Your task to perform on an android device: open device folders in google photos Image 0: 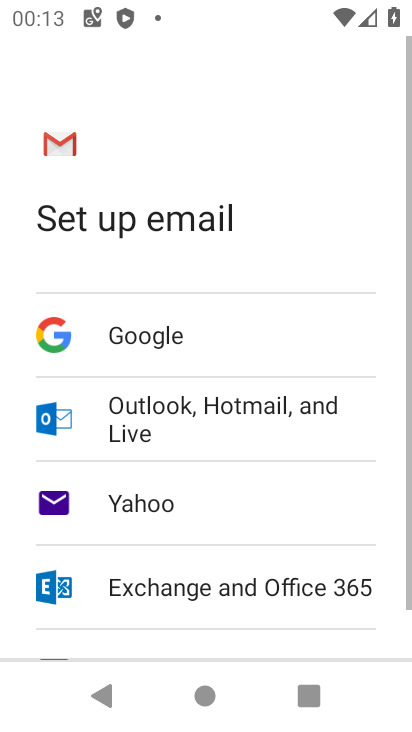
Step 0: press home button
Your task to perform on an android device: open device folders in google photos Image 1: 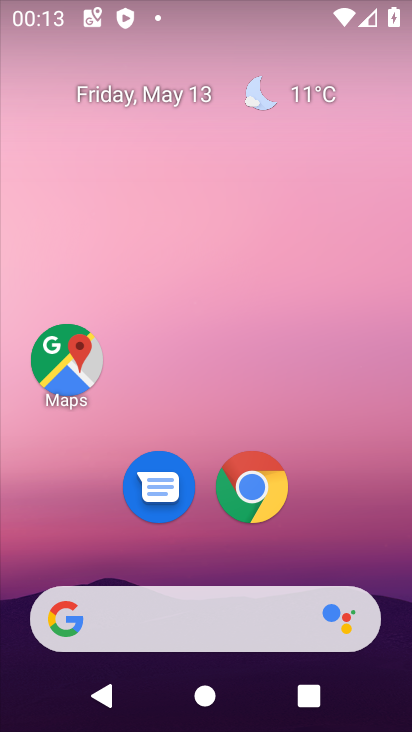
Step 1: drag from (177, 559) to (237, 0)
Your task to perform on an android device: open device folders in google photos Image 2: 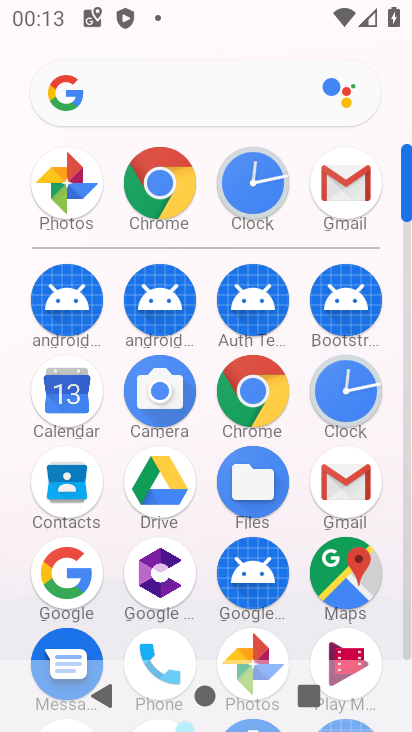
Step 2: click (74, 178)
Your task to perform on an android device: open device folders in google photos Image 3: 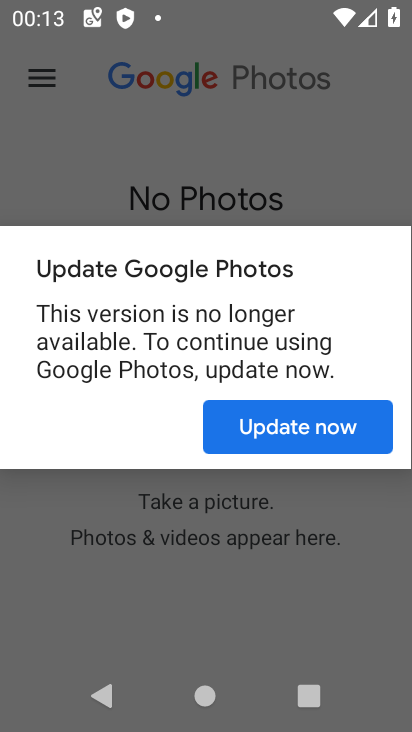
Step 3: click (29, 57)
Your task to perform on an android device: open device folders in google photos Image 4: 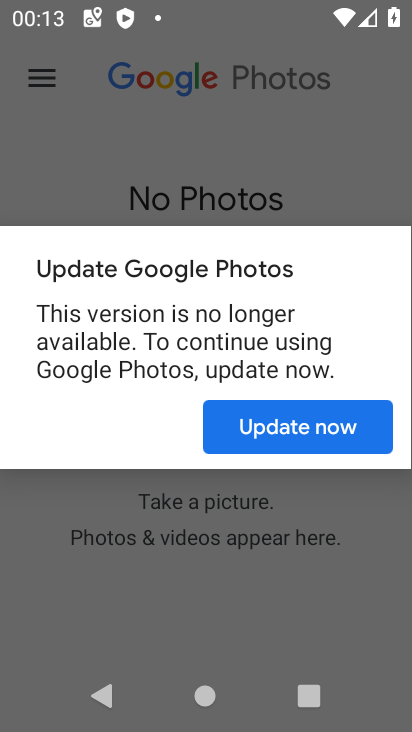
Step 4: click (358, 428)
Your task to perform on an android device: open device folders in google photos Image 5: 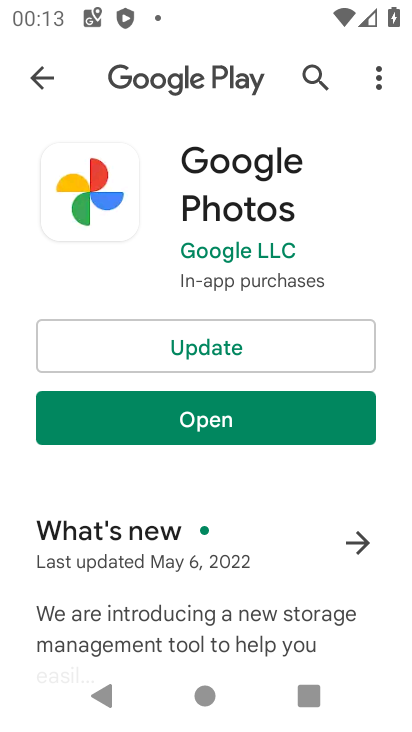
Step 5: click (245, 410)
Your task to perform on an android device: open device folders in google photos Image 6: 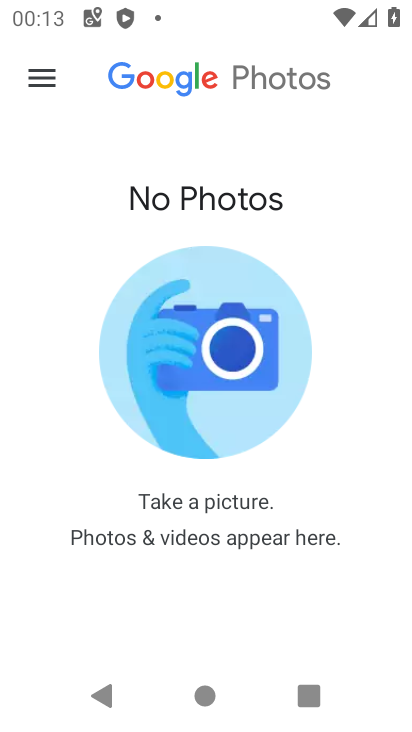
Step 6: click (64, 91)
Your task to perform on an android device: open device folders in google photos Image 7: 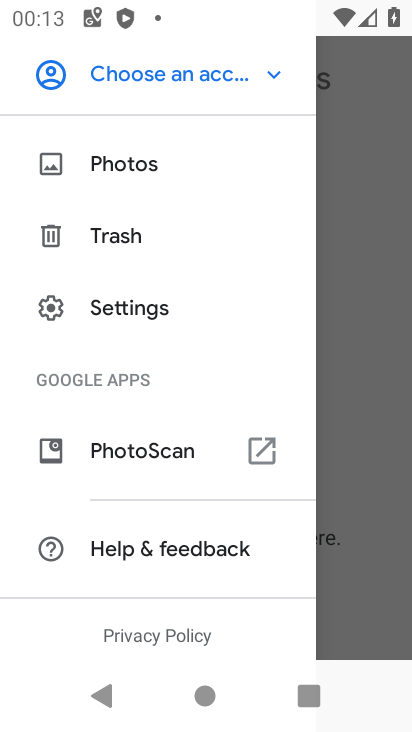
Step 7: task complete